Your task to perform on an android device: empty trash in the gmail app Image 0: 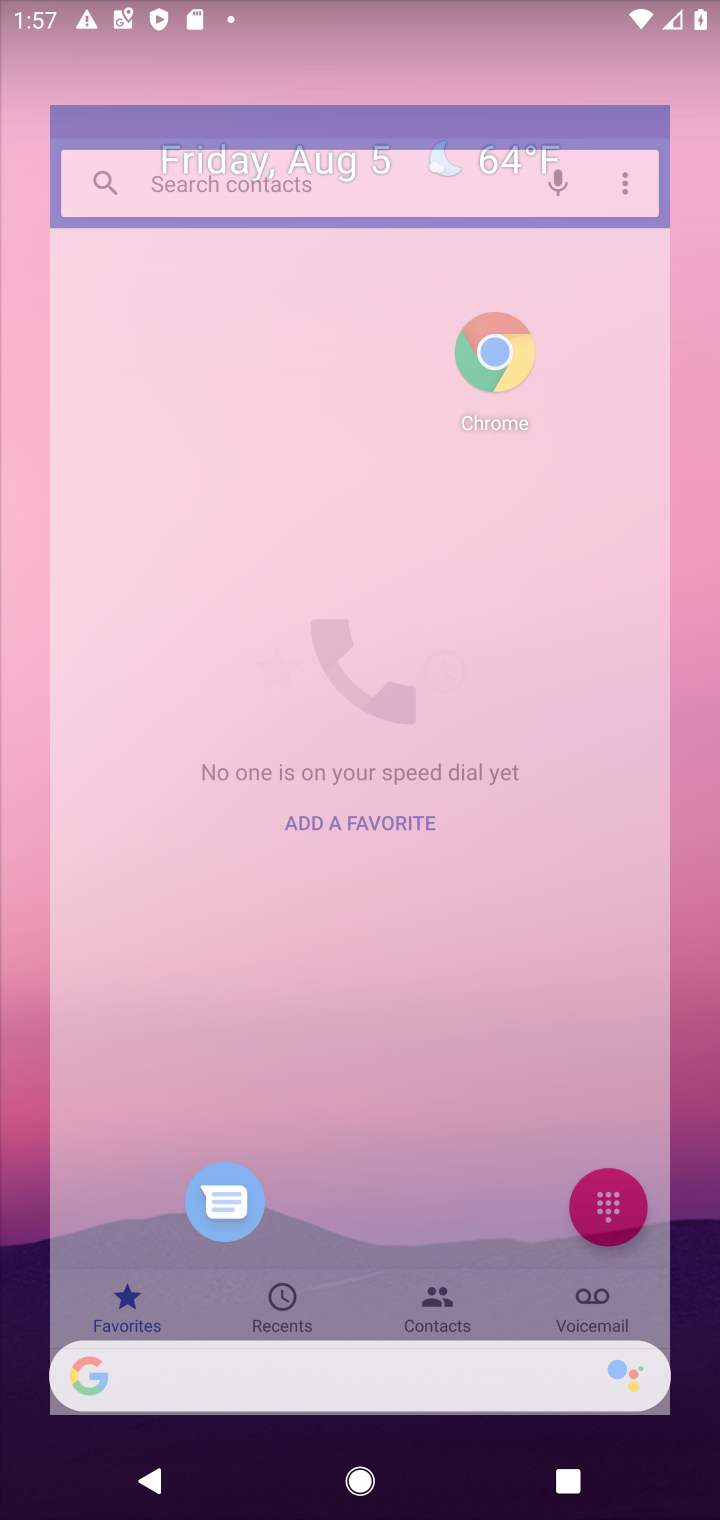
Step 0: press home button
Your task to perform on an android device: empty trash in the gmail app Image 1: 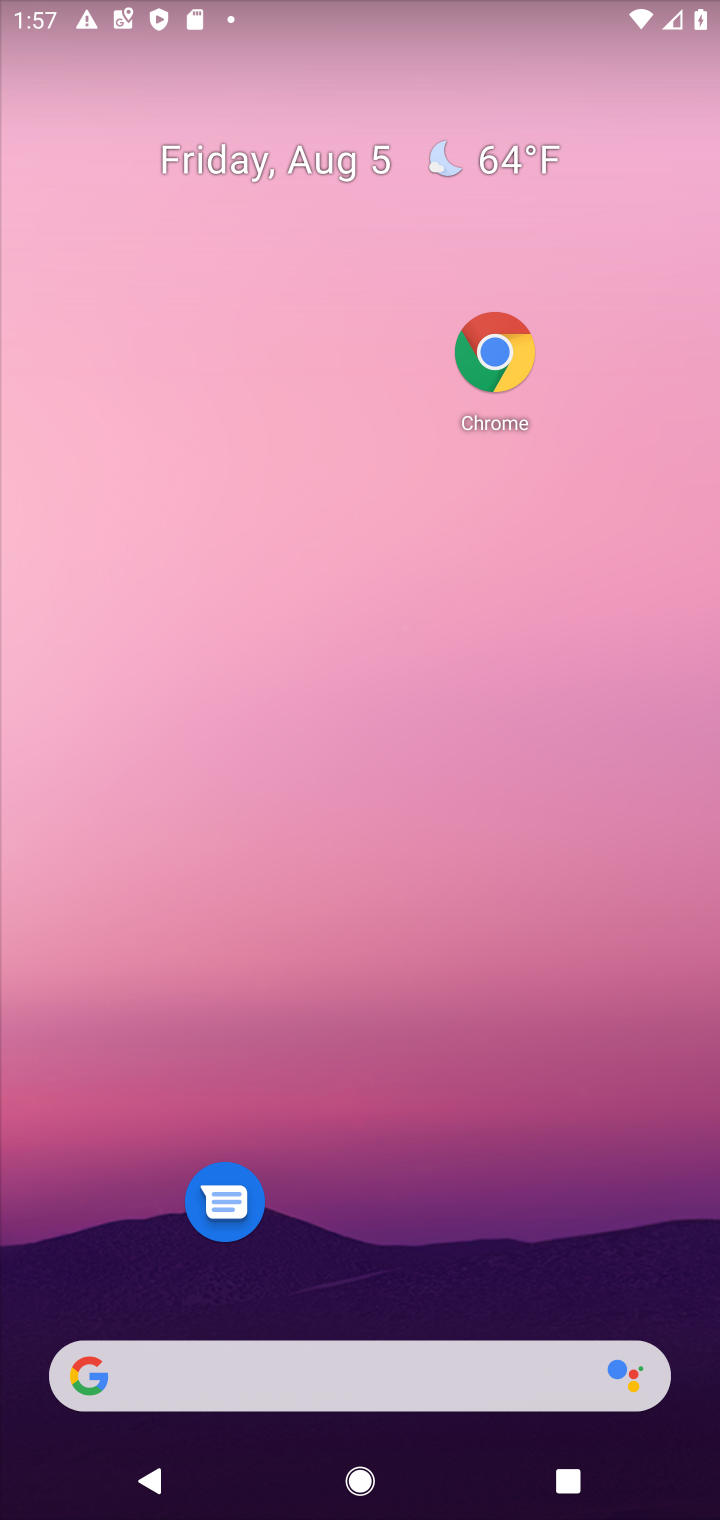
Step 1: drag from (557, 1187) to (668, 126)
Your task to perform on an android device: empty trash in the gmail app Image 2: 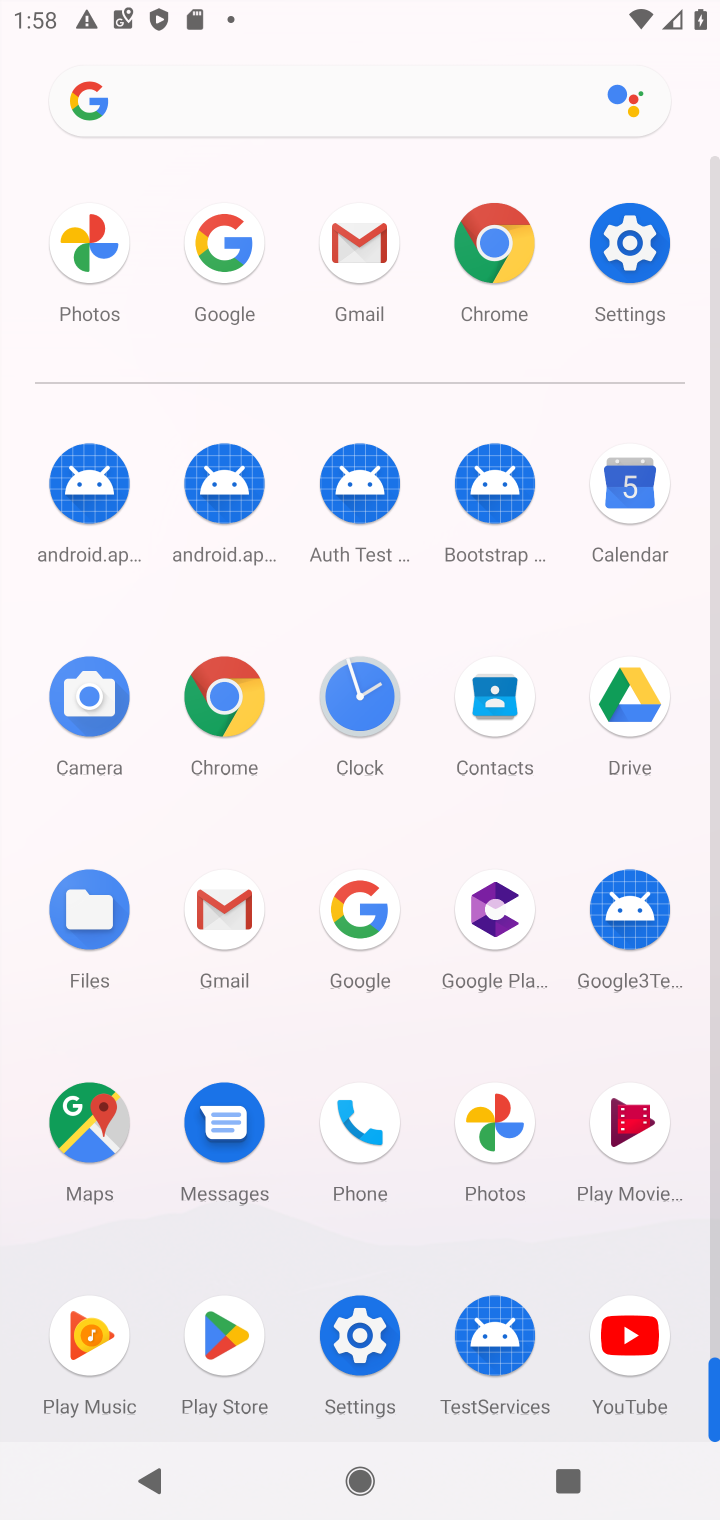
Step 2: click (245, 907)
Your task to perform on an android device: empty trash in the gmail app Image 3: 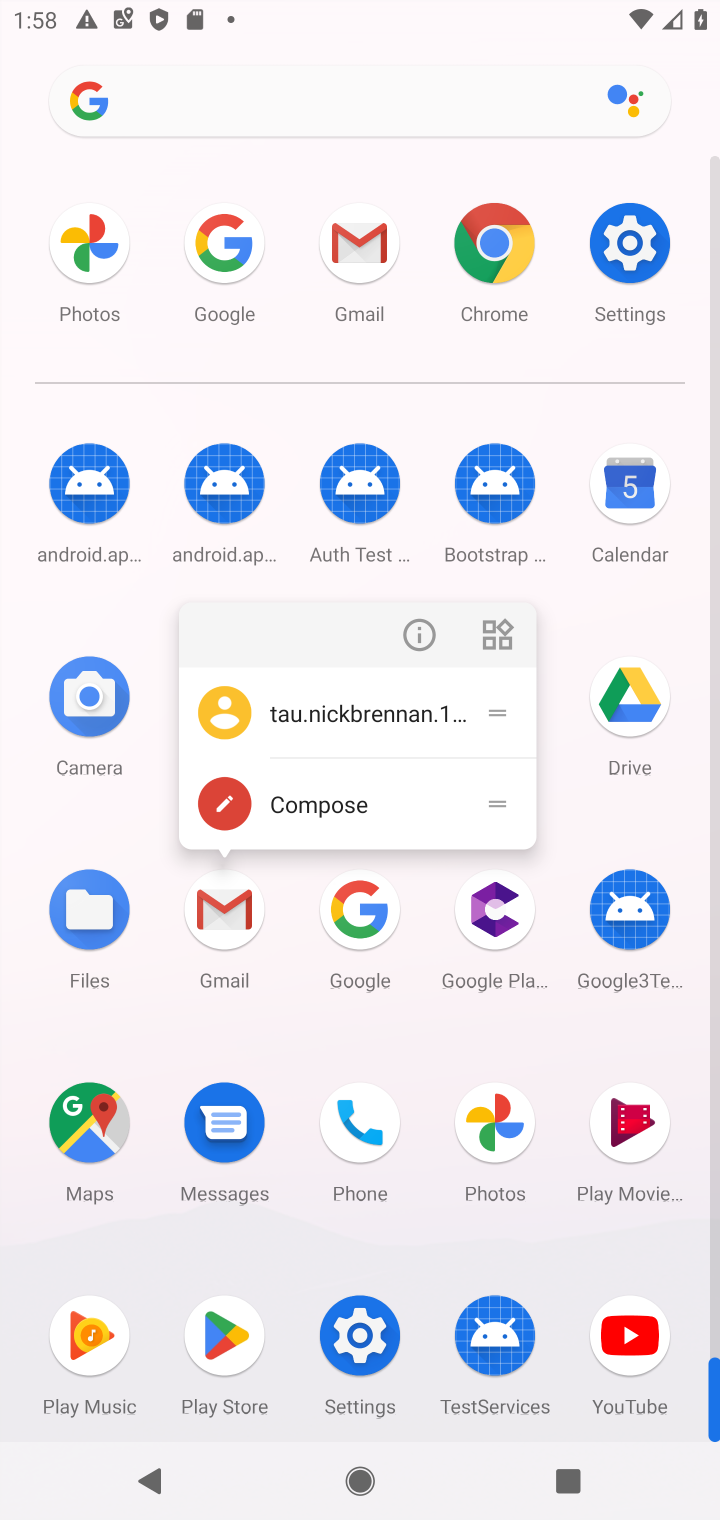
Step 3: click (233, 924)
Your task to perform on an android device: empty trash in the gmail app Image 4: 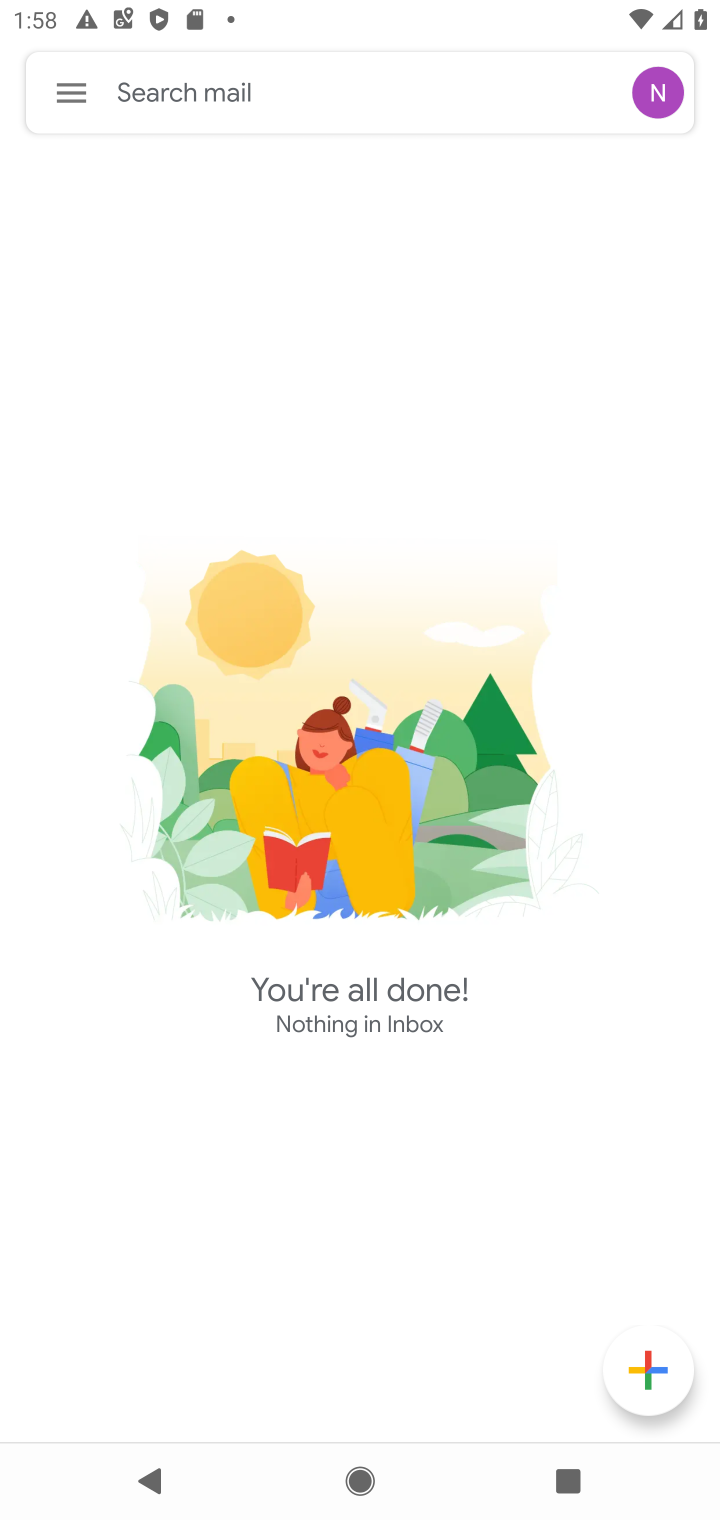
Step 4: click (67, 96)
Your task to perform on an android device: empty trash in the gmail app Image 5: 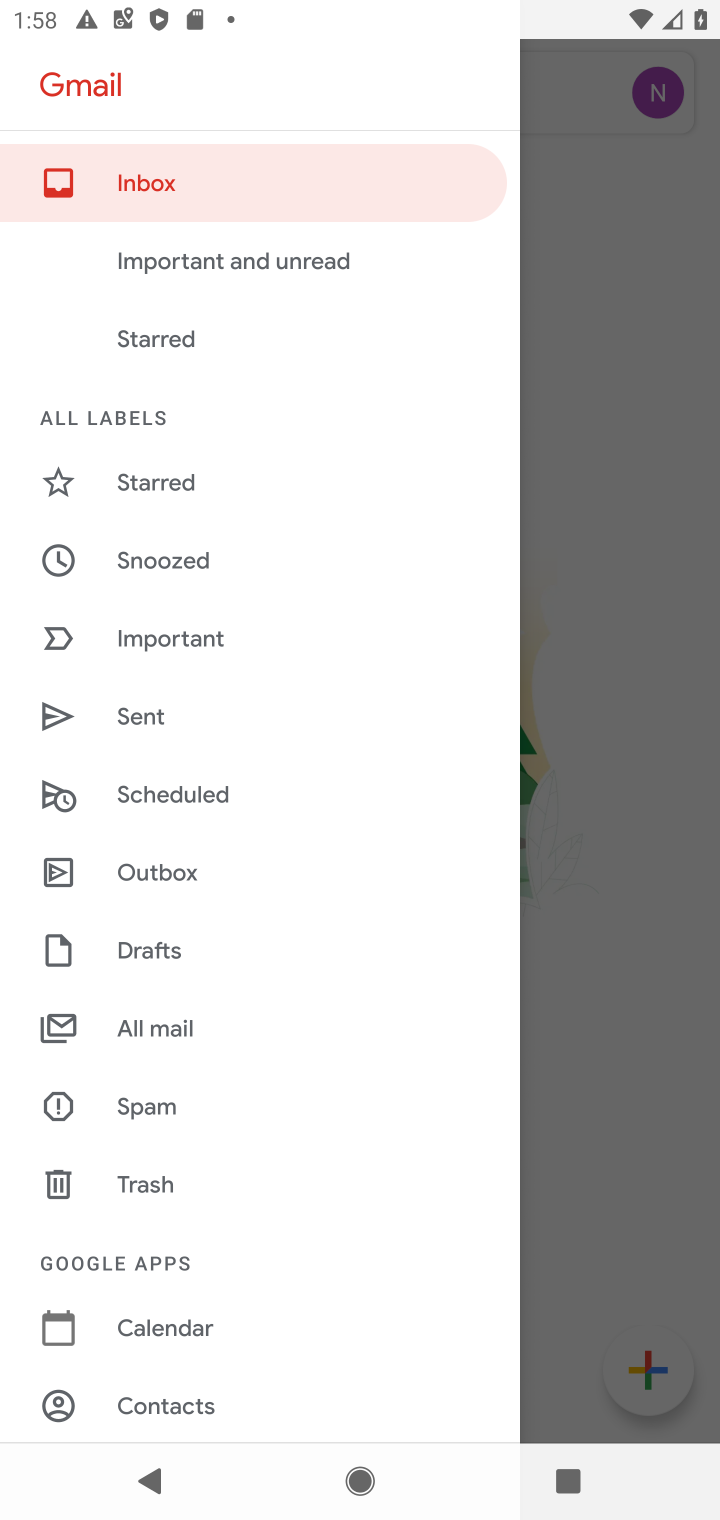
Step 5: click (169, 1181)
Your task to perform on an android device: empty trash in the gmail app Image 6: 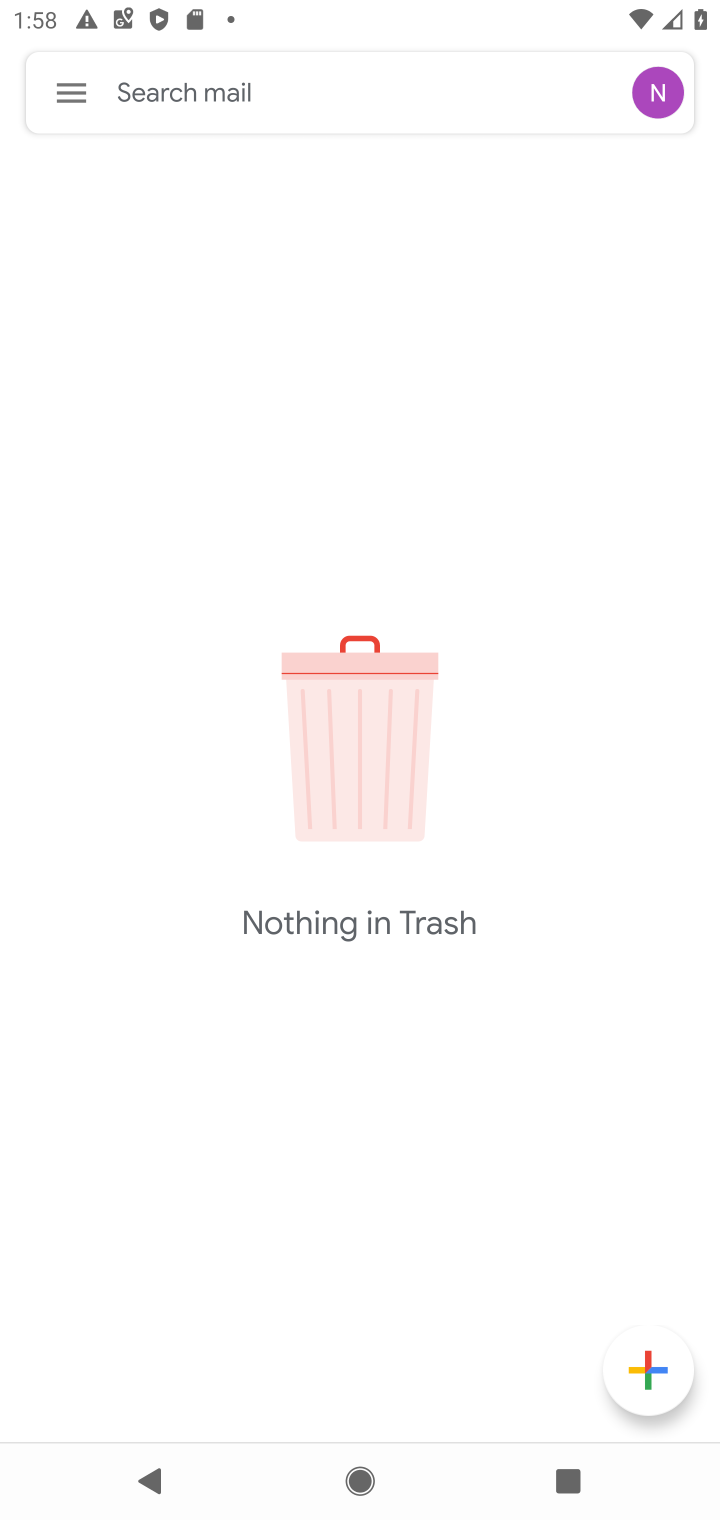
Step 6: task complete